Your task to perform on an android device: snooze an email in the gmail app Image 0: 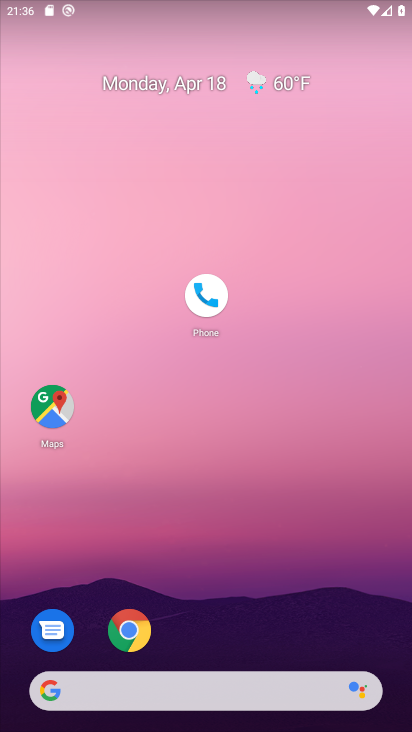
Step 0: drag from (339, 613) to (345, 116)
Your task to perform on an android device: snooze an email in the gmail app Image 1: 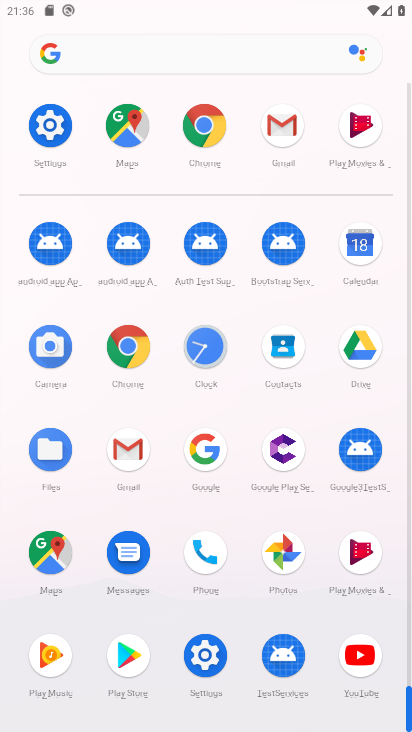
Step 1: click (119, 444)
Your task to perform on an android device: snooze an email in the gmail app Image 2: 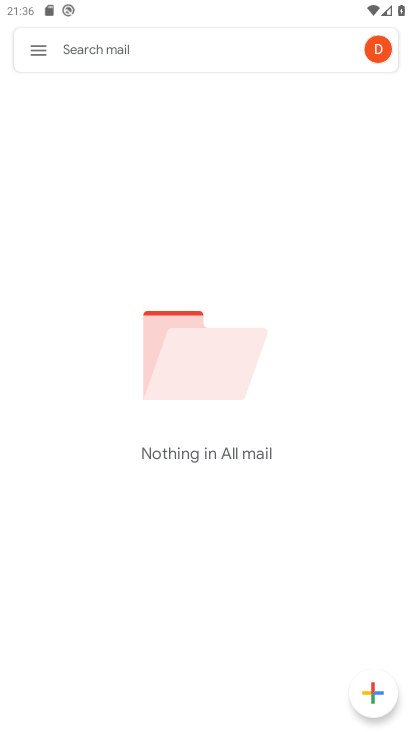
Step 2: task complete